Your task to perform on an android device: Open Google Chrome and open the bookmarks view Image 0: 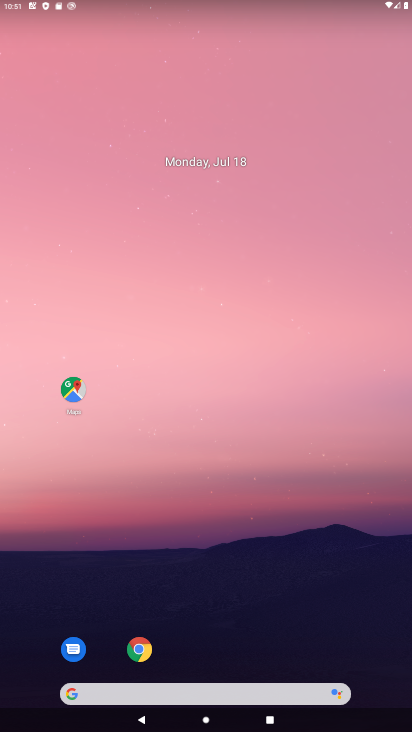
Step 0: click (141, 647)
Your task to perform on an android device: Open Google Chrome and open the bookmarks view Image 1: 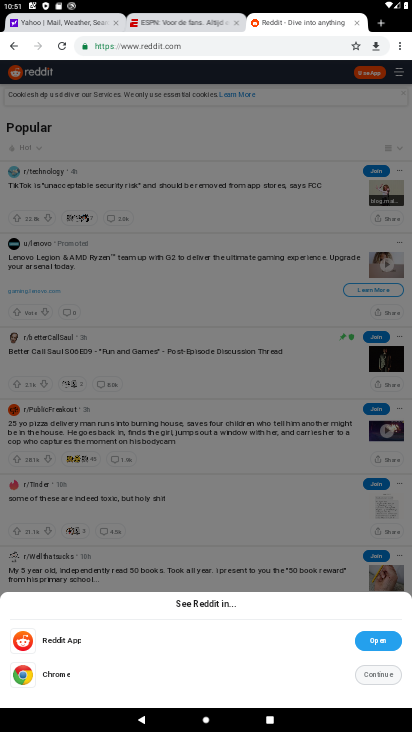
Step 1: click (402, 42)
Your task to perform on an android device: Open Google Chrome and open the bookmarks view Image 2: 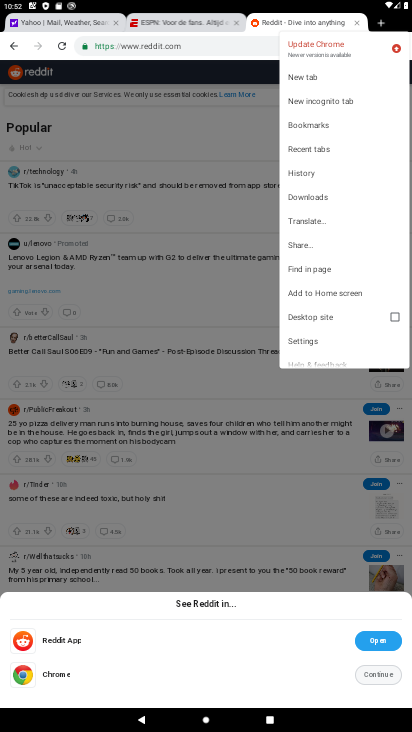
Step 2: click (317, 122)
Your task to perform on an android device: Open Google Chrome and open the bookmarks view Image 3: 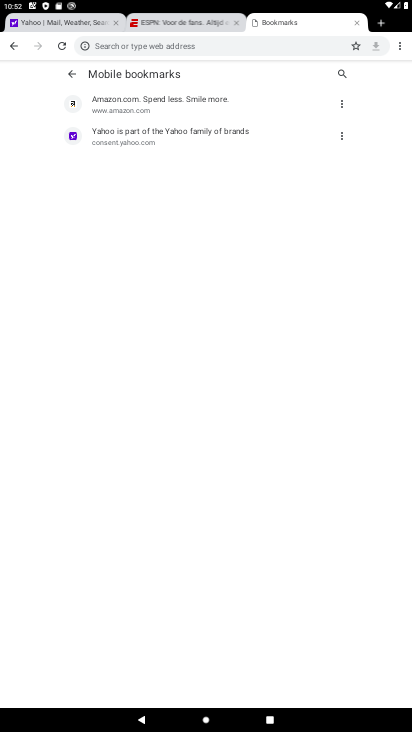
Step 3: click (347, 100)
Your task to perform on an android device: Open Google Chrome and open the bookmarks view Image 4: 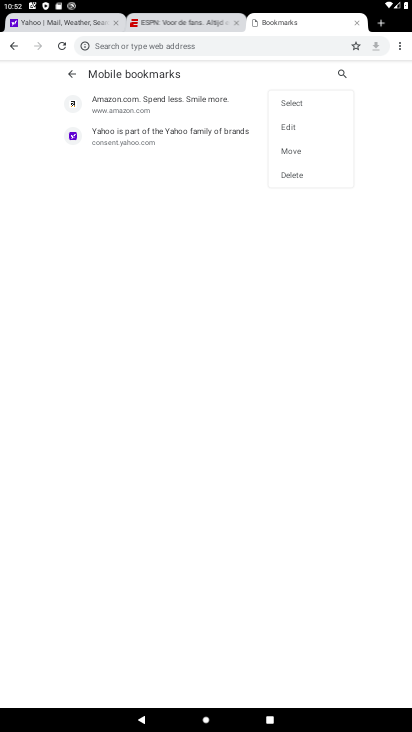
Step 4: click (308, 130)
Your task to perform on an android device: Open Google Chrome and open the bookmarks view Image 5: 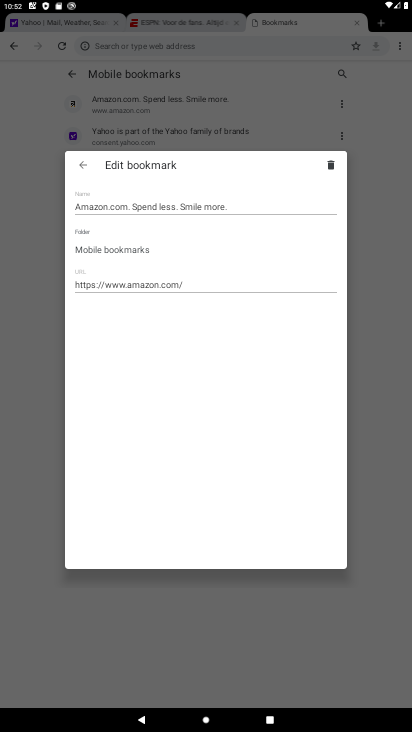
Step 5: task complete